Your task to perform on an android device: Go to display settings Image 0: 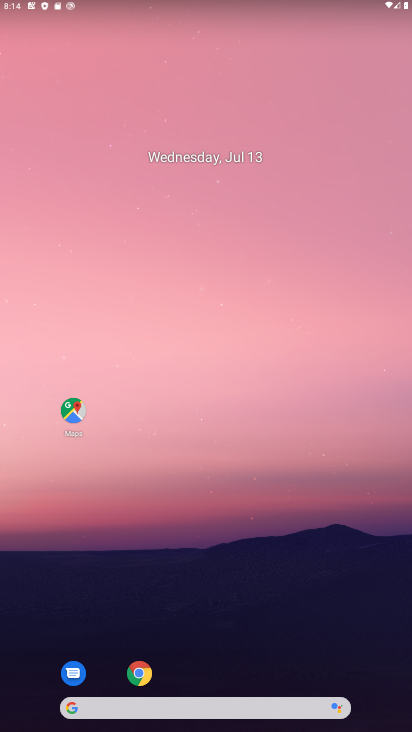
Step 0: drag from (315, 643) to (299, 142)
Your task to perform on an android device: Go to display settings Image 1: 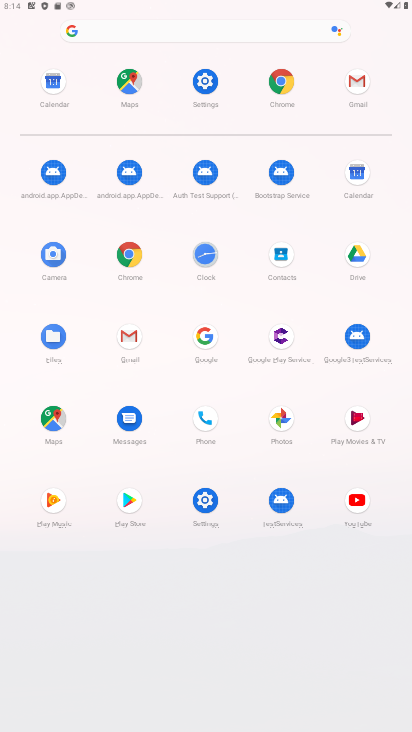
Step 1: click (213, 84)
Your task to perform on an android device: Go to display settings Image 2: 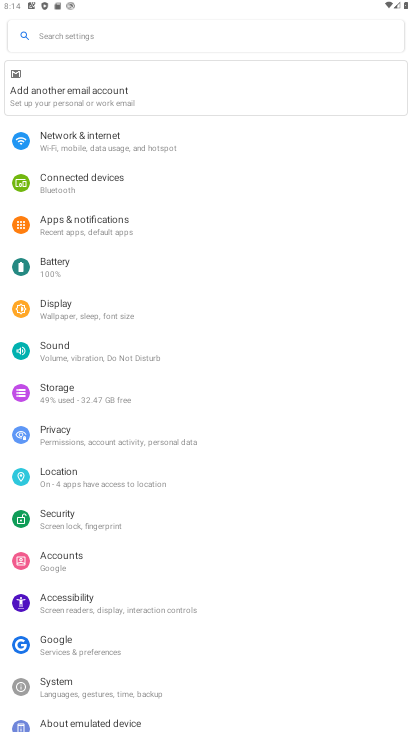
Step 2: click (64, 313)
Your task to perform on an android device: Go to display settings Image 3: 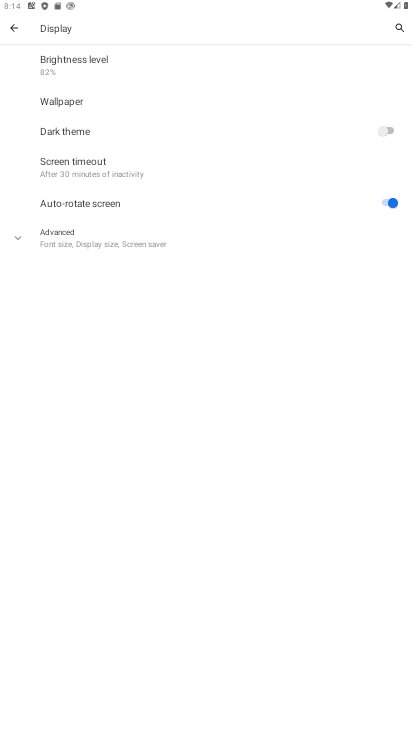
Step 3: task complete